Your task to perform on an android device: Open Google Chrome and click the shortcut for Amazon.com Image 0: 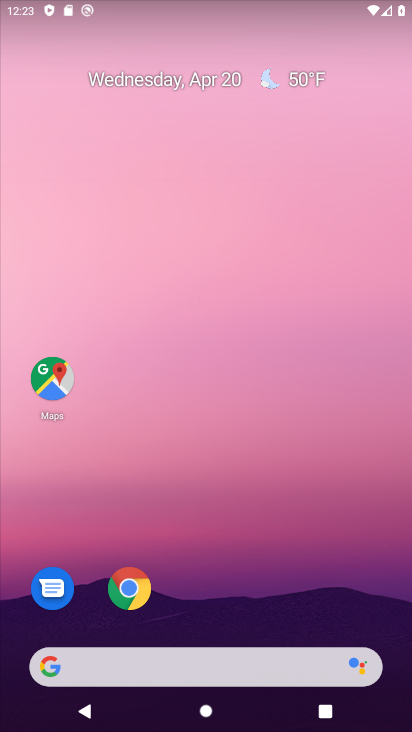
Step 0: click (124, 583)
Your task to perform on an android device: Open Google Chrome and click the shortcut for Amazon.com Image 1: 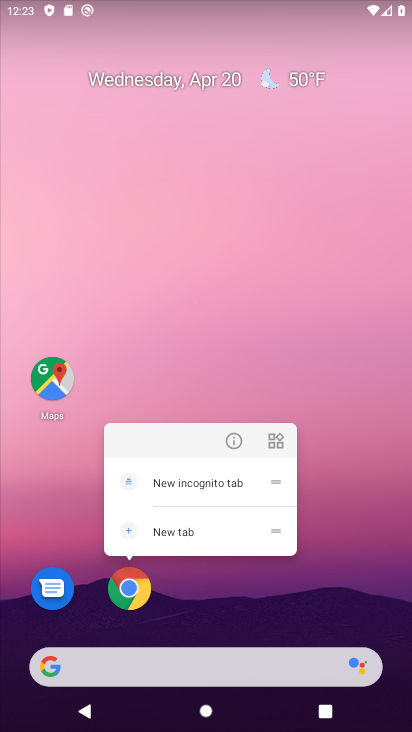
Step 1: click (130, 584)
Your task to perform on an android device: Open Google Chrome and click the shortcut for Amazon.com Image 2: 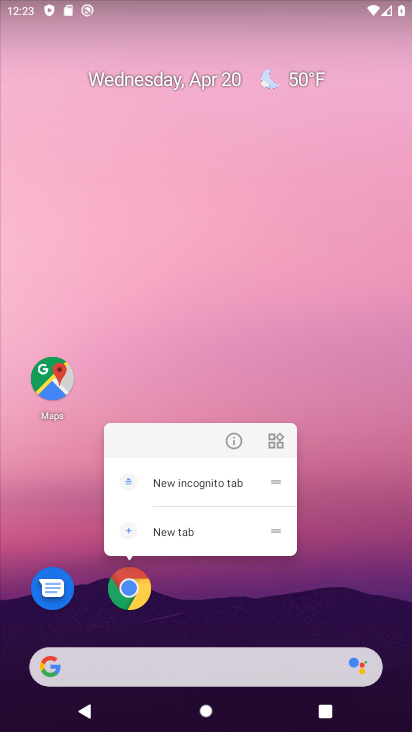
Step 2: click (130, 584)
Your task to perform on an android device: Open Google Chrome and click the shortcut for Amazon.com Image 3: 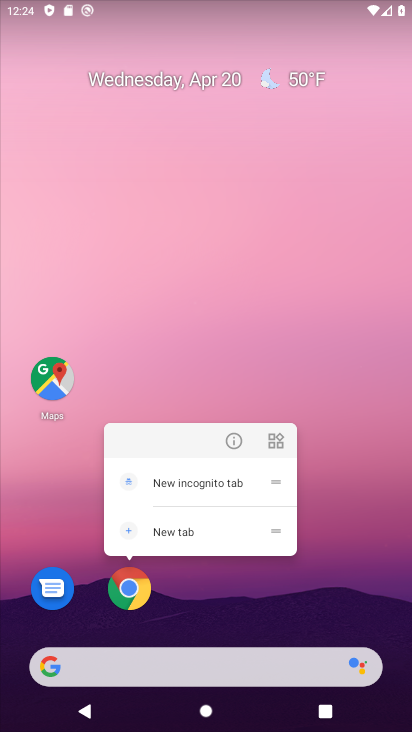
Step 3: click (192, 594)
Your task to perform on an android device: Open Google Chrome and click the shortcut for Amazon.com Image 4: 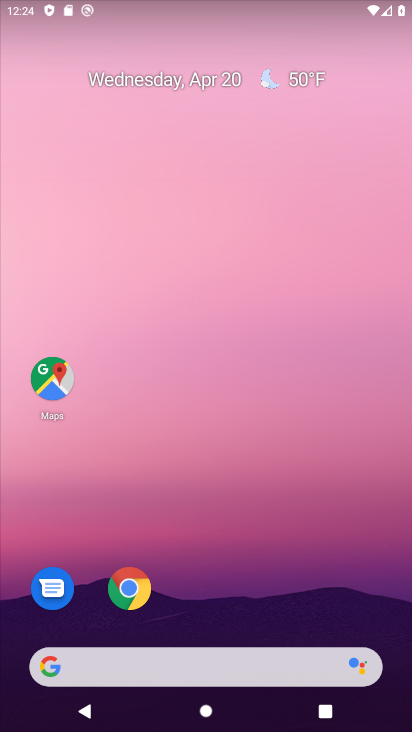
Step 4: click (299, 614)
Your task to perform on an android device: Open Google Chrome and click the shortcut for Amazon.com Image 5: 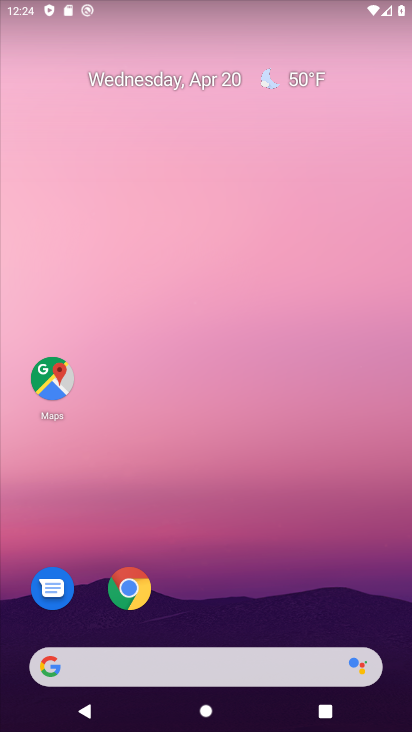
Step 5: click (129, 584)
Your task to perform on an android device: Open Google Chrome and click the shortcut for Amazon.com Image 6: 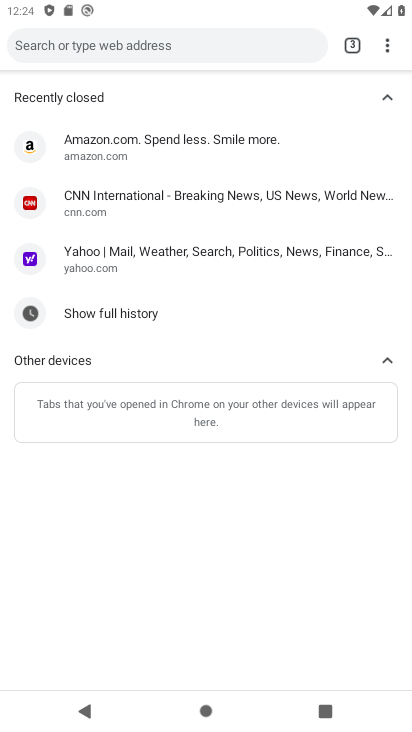
Step 6: click (349, 42)
Your task to perform on an android device: Open Google Chrome and click the shortcut for Amazon.com Image 7: 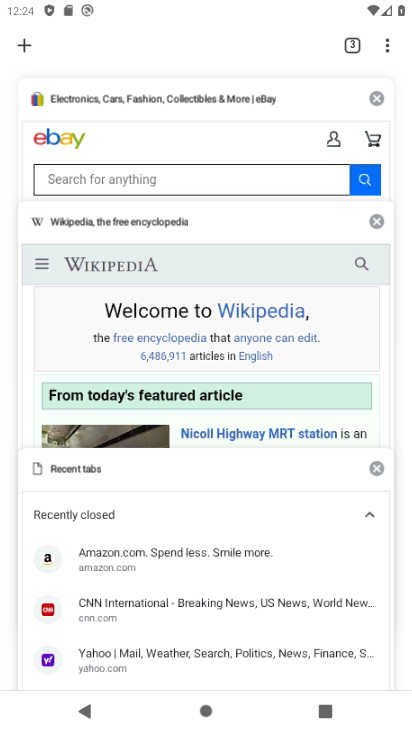
Step 7: click (372, 94)
Your task to perform on an android device: Open Google Chrome and click the shortcut for Amazon.com Image 8: 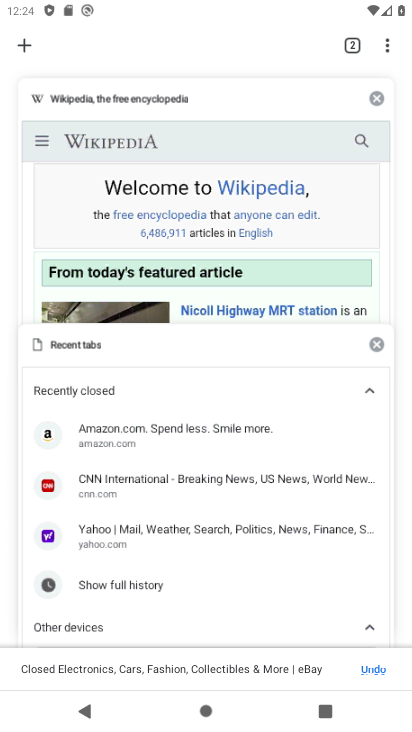
Step 8: click (373, 94)
Your task to perform on an android device: Open Google Chrome and click the shortcut for Amazon.com Image 9: 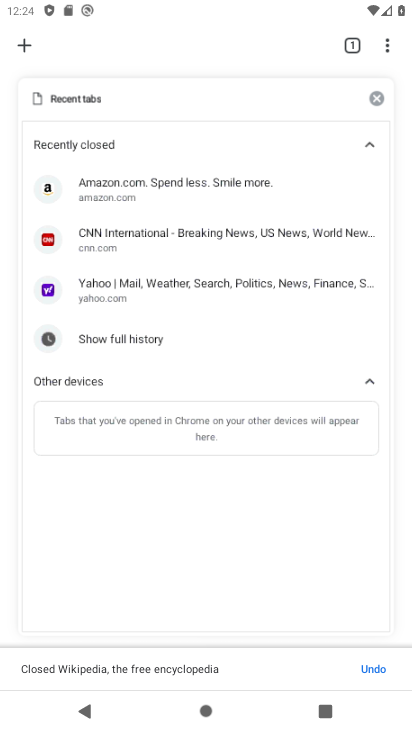
Step 9: click (373, 94)
Your task to perform on an android device: Open Google Chrome and click the shortcut for Amazon.com Image 10: 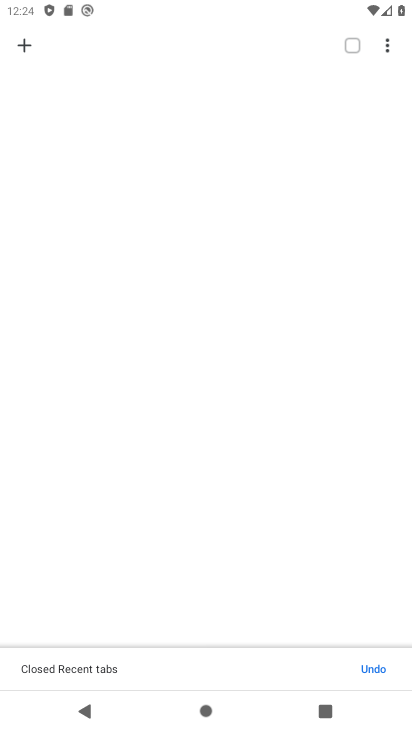
Step 10: click (25, 39)
Your task to perform on an android device: Open Google Chrome and click the shortcut for Amazon.com Image 11: 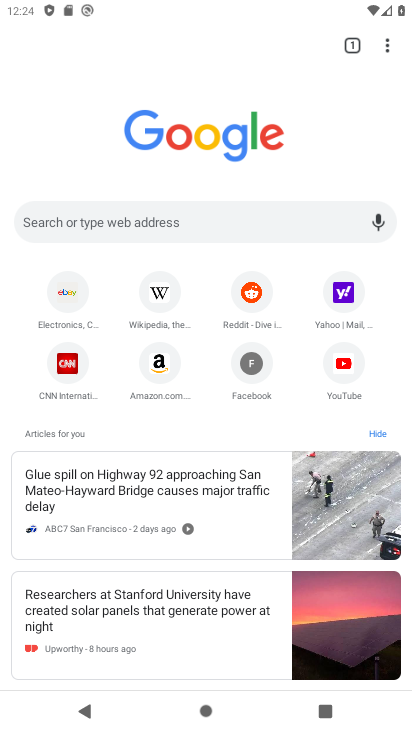
Step 11: click (164, 361)
Your task to perform on an android device: Open Google Chrome and click the shortcut for Amazon.com Image 12: 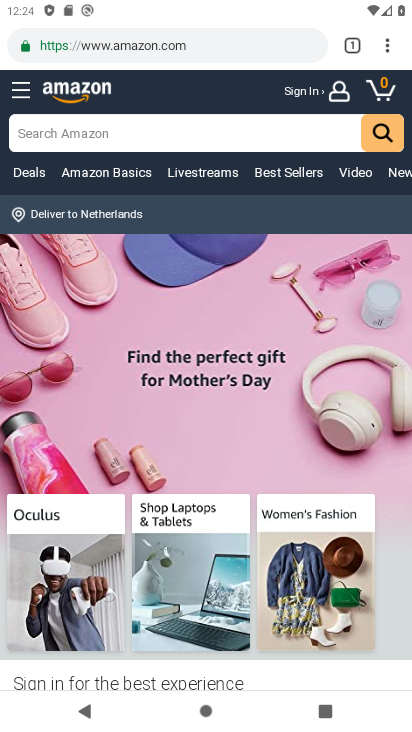
Step 12: task complete